Your task to perform on an android device: open app "Cash App" (install if not already installed) Image 0: 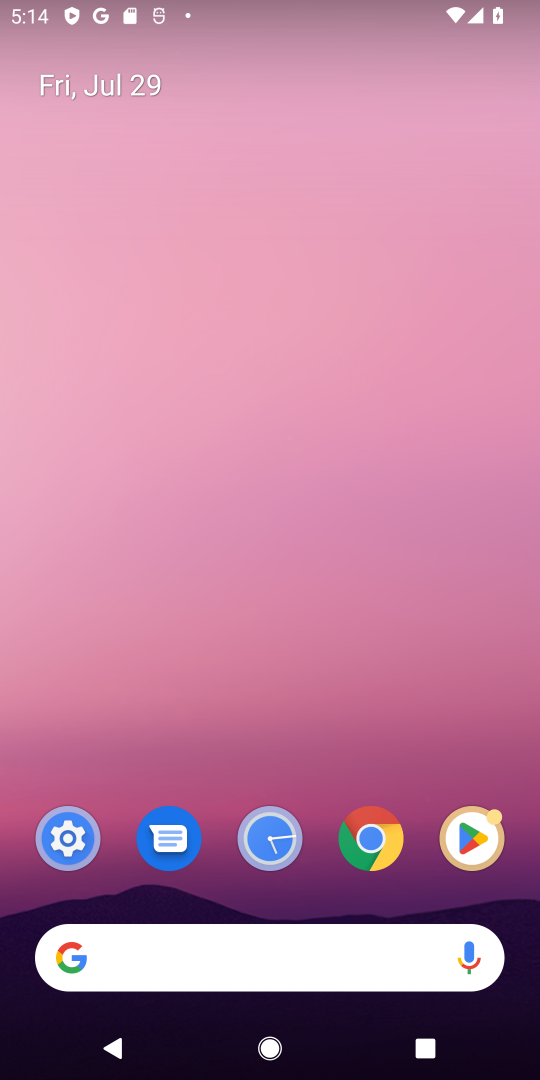
Step 0: click (459, 841)
Your task to perform on an android device: open app "Cash App" (install if not already installed) Image 1: 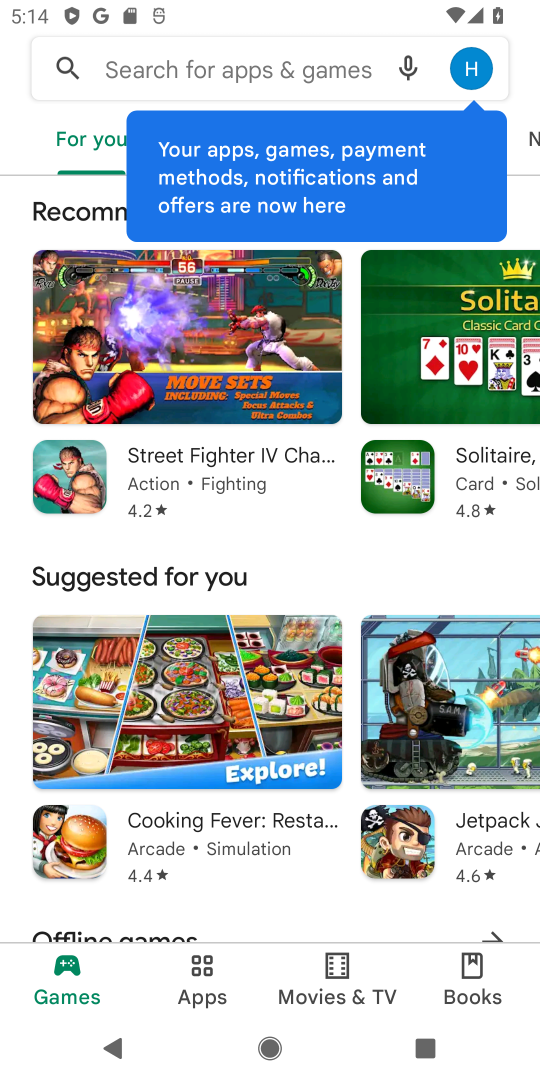
Step 1: click (230, 37)
Your task to perform on an android device: open app "Cash App" (install if not already installed) Image 2: 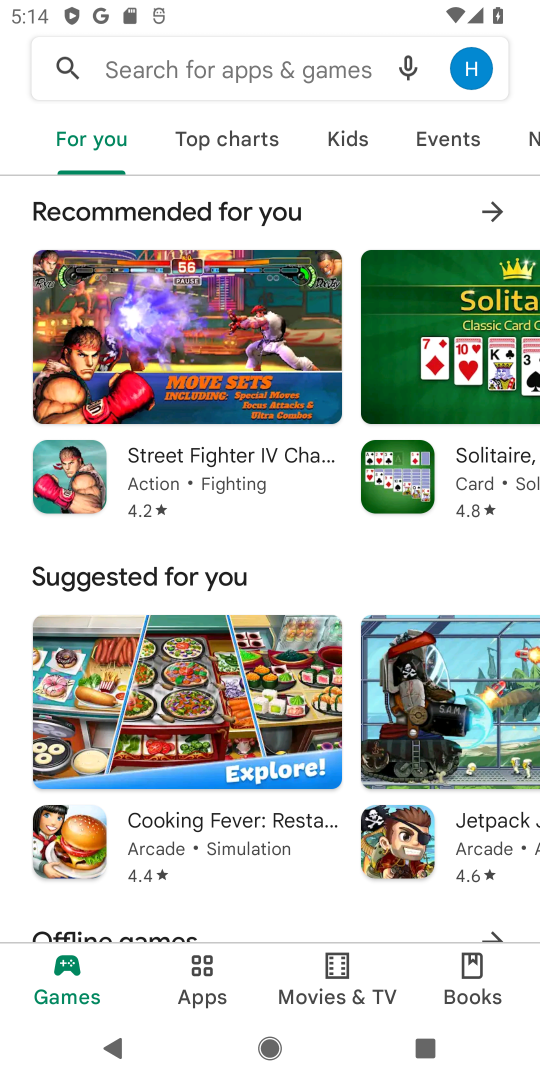
Step 2: click (196, 80)
Your task to perform on an android device: open app "Cash App" (install if not already installed) Image 3: 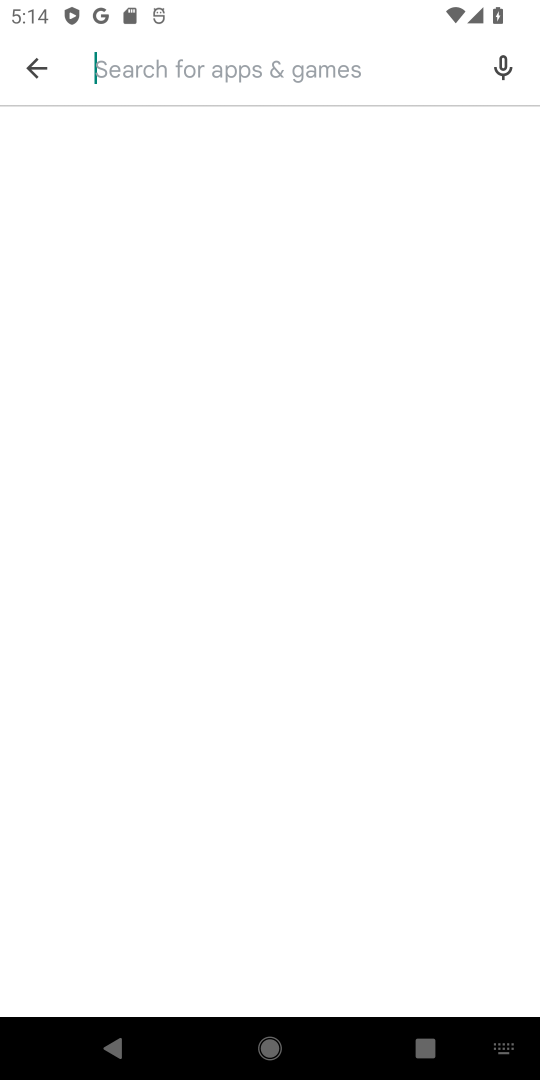
Step 3: type "cash app"
Your task to perform on an android device: open app "Cash App" (install if not already installed) Image 4: 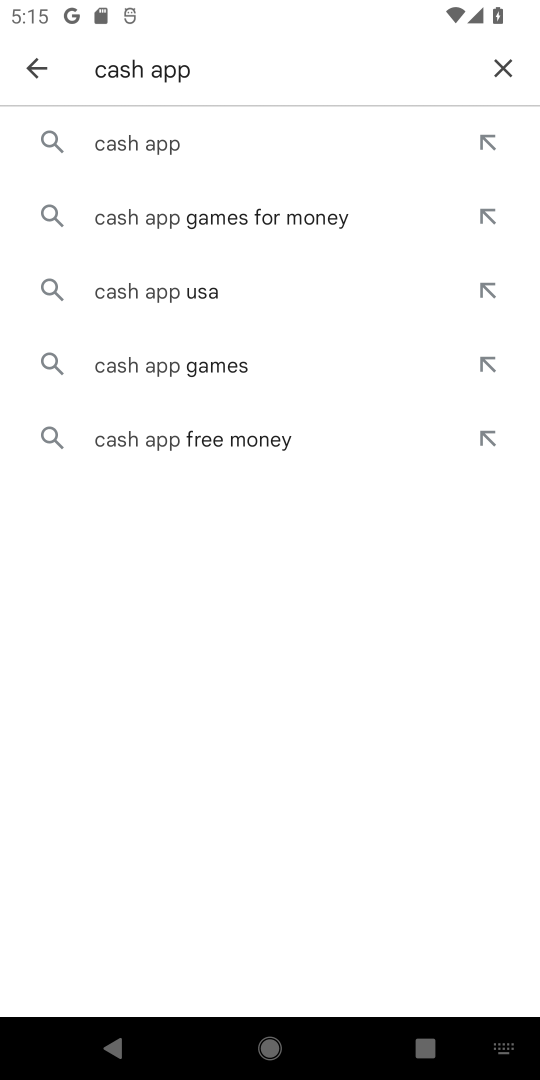
Step 4: click (213, 137)
Your task to perform on an android device: open app "Cash App" (install if not already installed) Image 5: 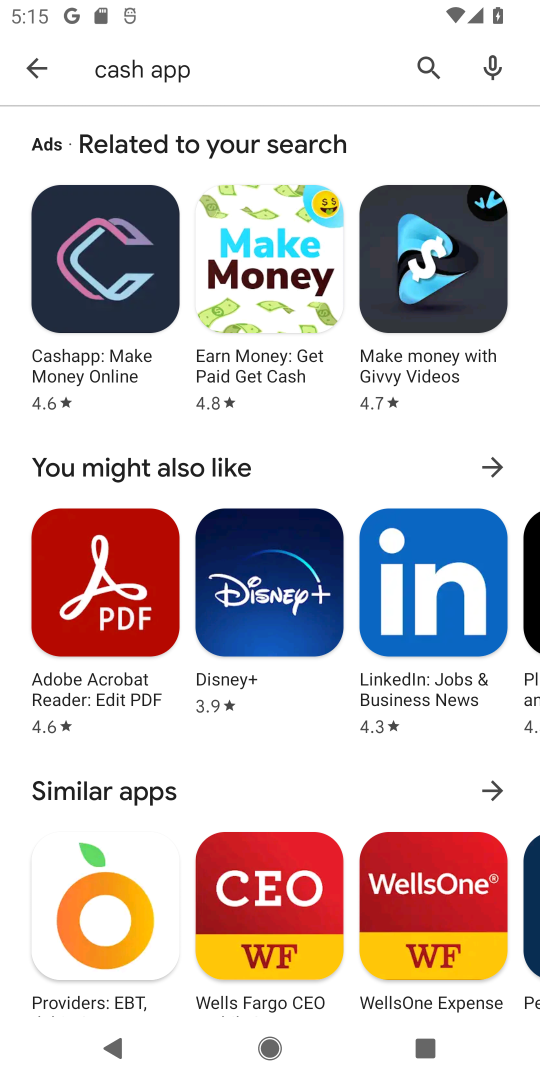
Step 5: click (104, 242)
Your task to perform on an android device: open app "Cash App" (install if not already installed) Image 6: 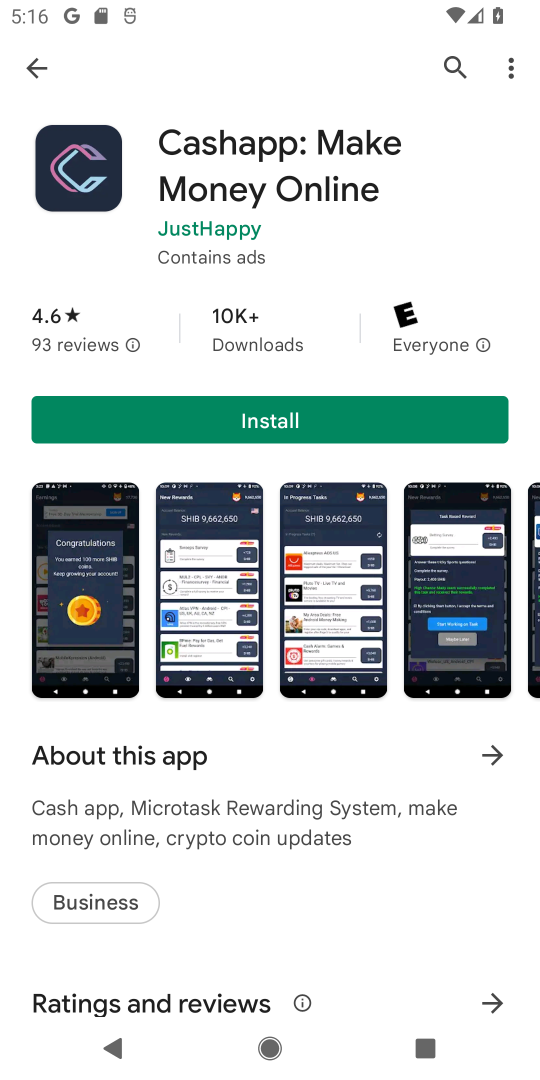
Step 6: click (331, 408)
Your task to perform on an android device: open app "Cash App" (install if not already installed) Image 7: 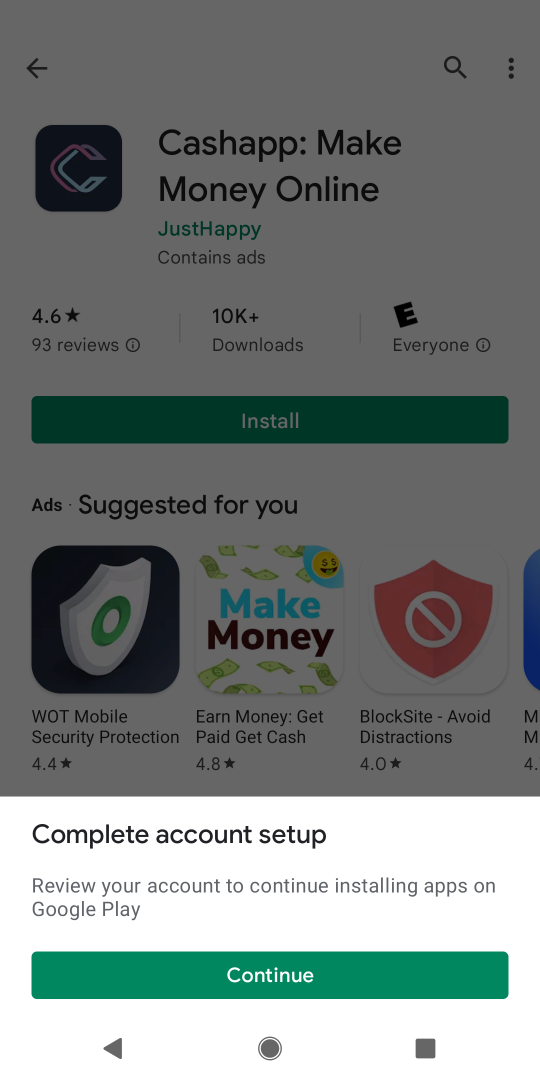
Step 7: click (286, 973)
Your task to perform on an android device: open app "Cash App" (install if not already installed) Image 8: 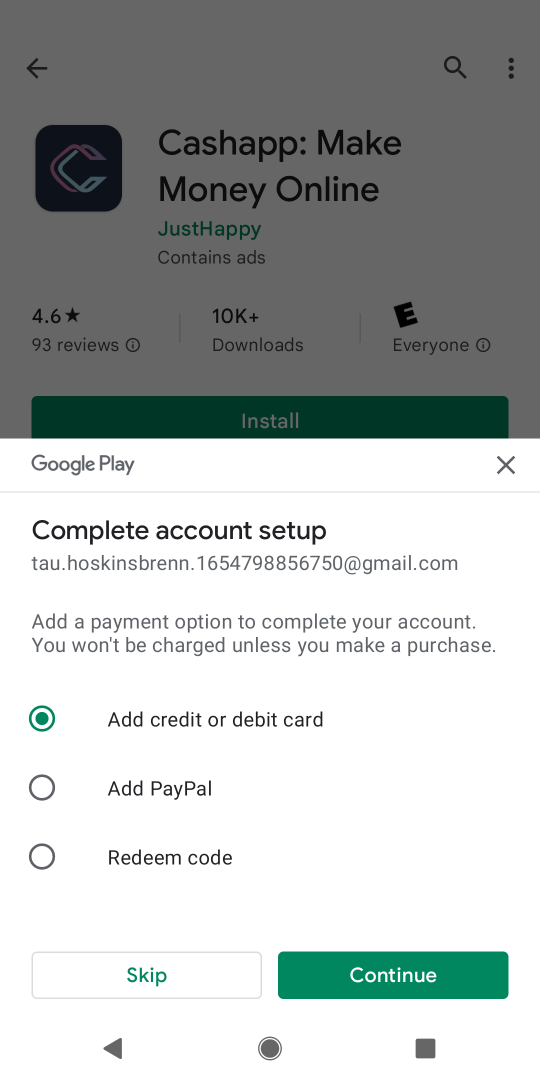
Step 8: click (164, 976)
Your task to perform on an android device: open app "Cash App" (install if not already installed) Image 9: 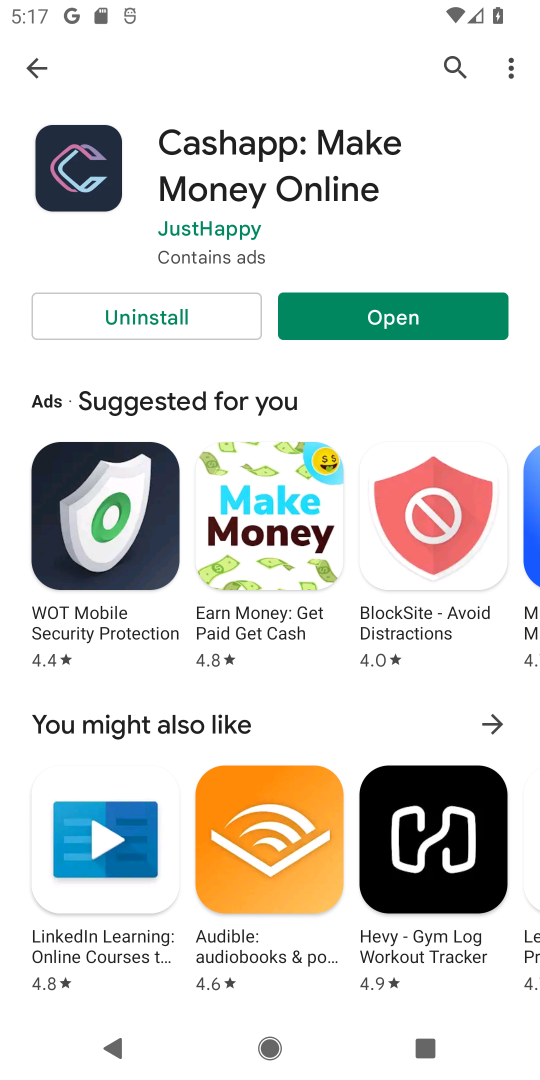
Step 9: click (374, 316)
Your task to perform on an android device: open app "Cash App" (install if not already installed) Image 10: 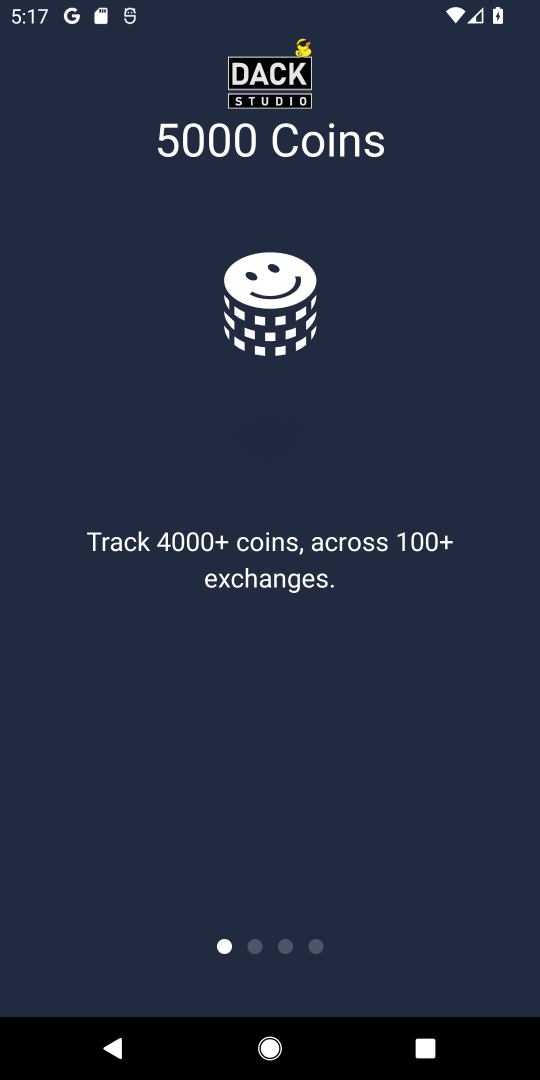
Step 10: task complete